Your task to perform on an android device: turn on location history Image 0: 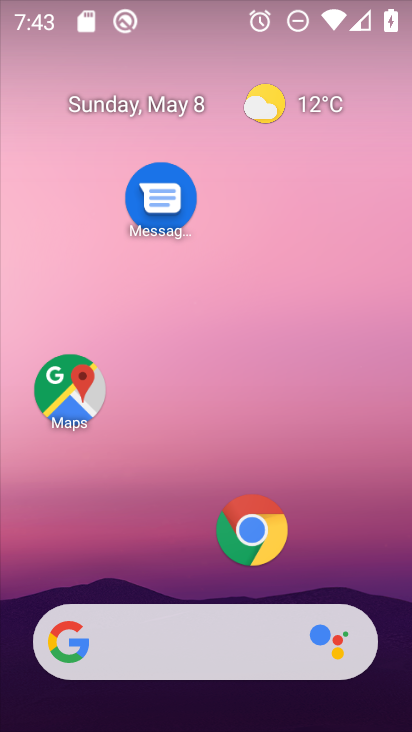
Step 0: drag from (192, 581) to (205, 49)
Your task to perform on an android device: turn on location history Image 1: 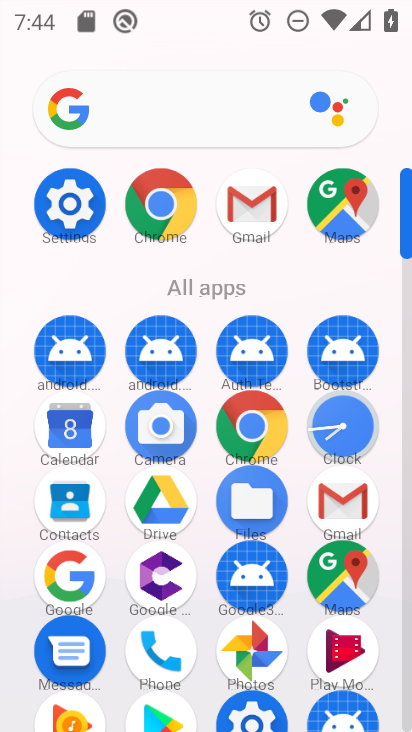
Step 1: click (252, 711)
Your task to perform on an android device: turn on location history Image 2: 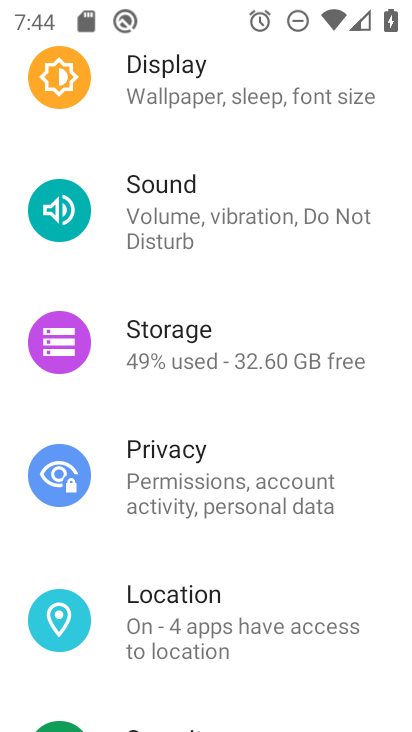
Step 2: click (188, 627)
Your task to perform on an android device: turn on location history Image 3: 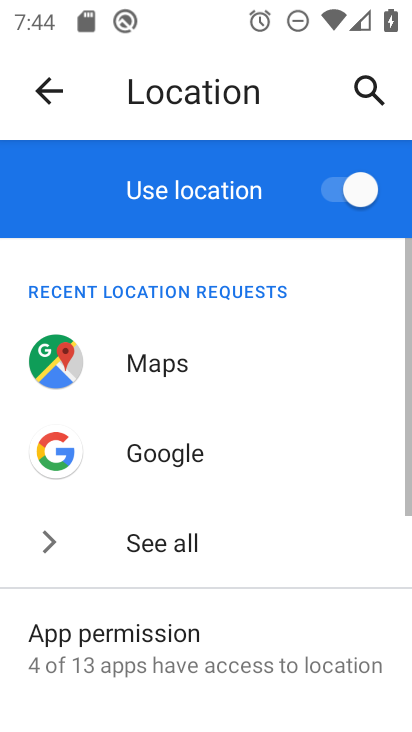
Step 3: drag from (185, 650) to (210, 196)
Your task to perform on an android device: turn on location history Image 4: 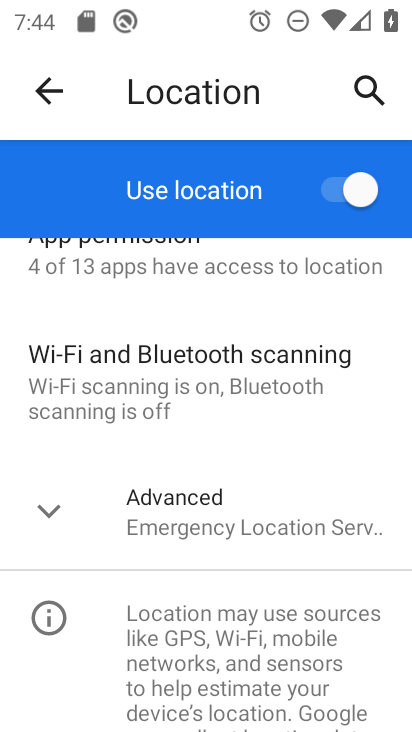
Step 4: click (33, 505)
Your task to perform on an android device: turn on location history Image 5: 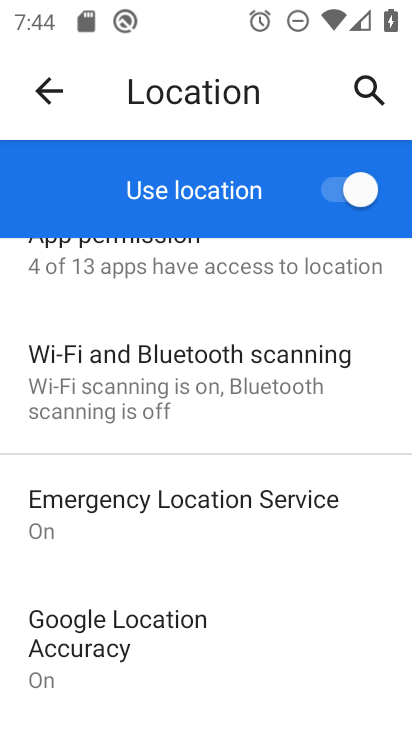
Step 5: drag from (163, 659) to (189, 305)
Your task to perform on an android device: turn on location history Image 6: 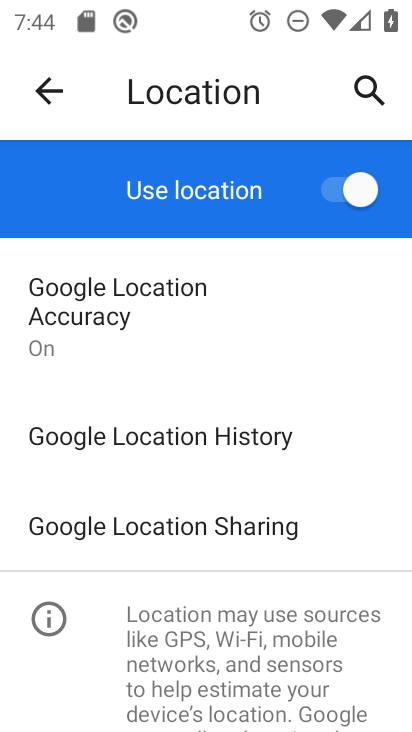
Step 6: click (304, 443)
Your task to perform on an android device: turn on location history Image 7: 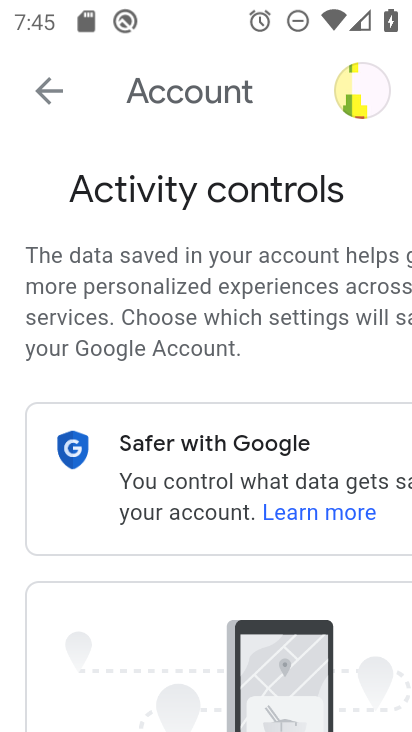
Step 7: drag from (183, 646) to (184, 197)
Your task to perform on an android device: turn on location history Image 8: 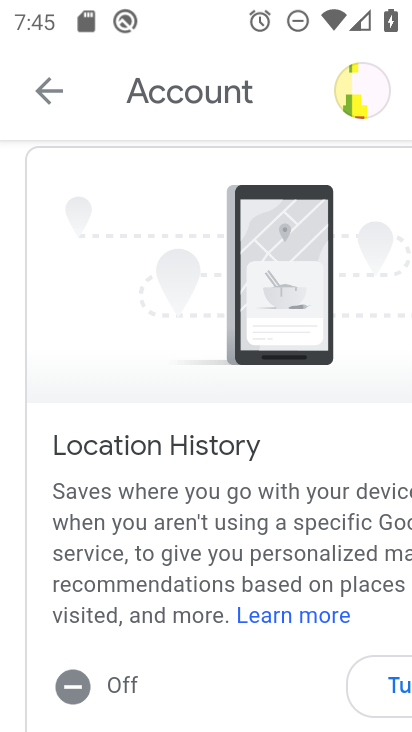
Step 8: click (371, 691)
Your task to perform on an android device: turn on location history Image 9: 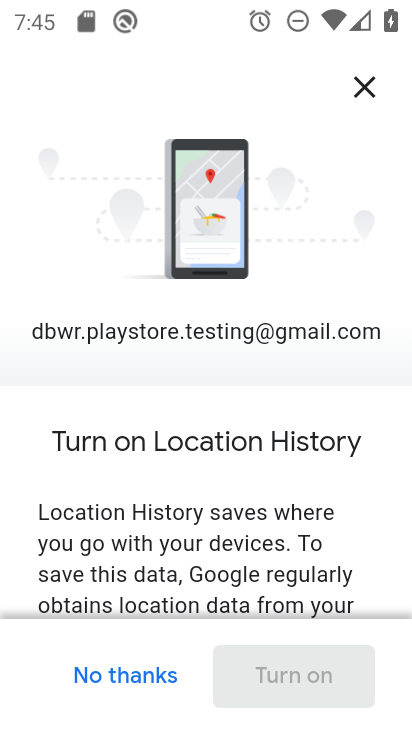
Step 9: drag from (238, 593) to (232, 148)
Your task to perform on an android device: turn on location history Image 10: 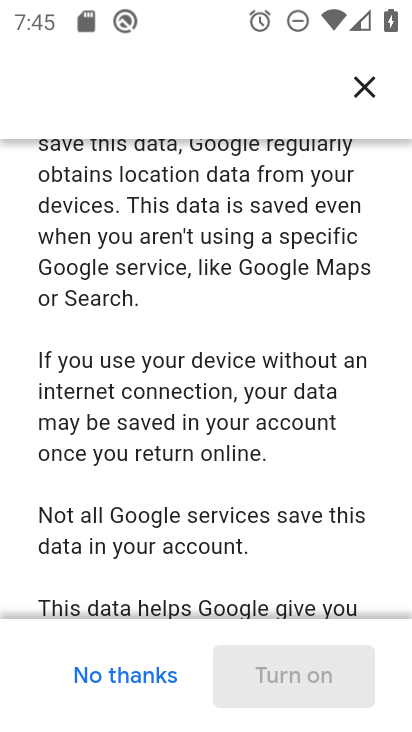
Step 10: drag from (230, 583) to (242, 137)
Your task to perform on an android device: turn on location history Image 11: 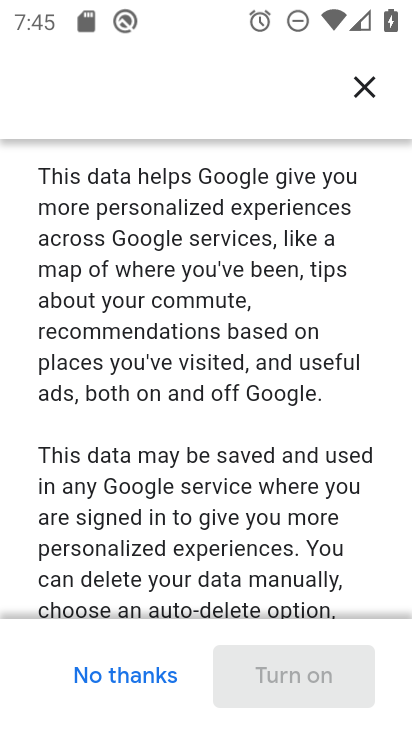
Step 11: drag from (244, 551) to (253, 104)
Your task to perform on an android device: turn on location history Image 12: 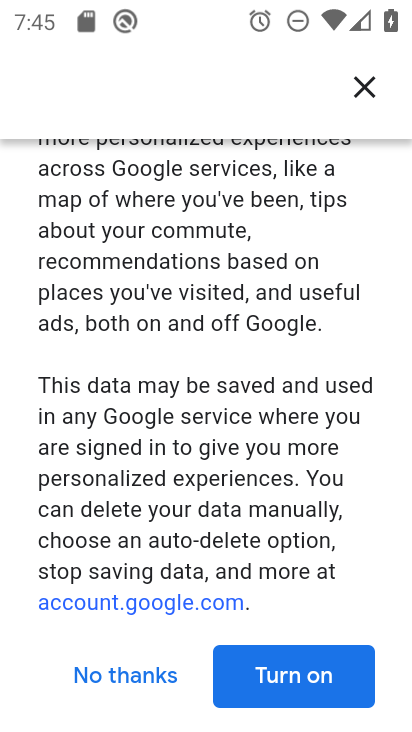
Step 12: click (291, 667)
Your task to perform on an android device: turn on location history Image 13: 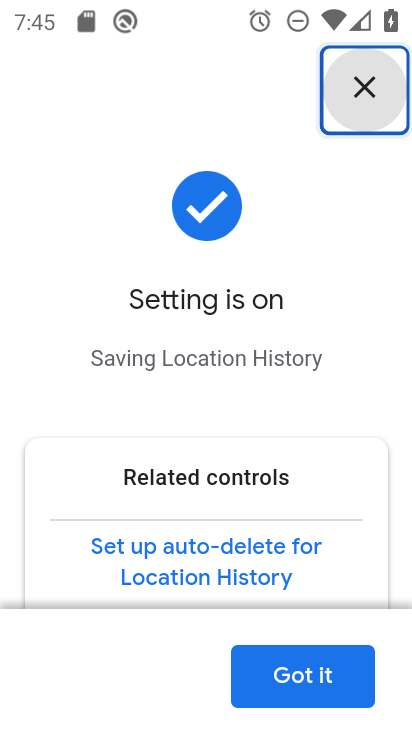
Step 13: click (294, 684)
Your task to perform on an android device: turn on location history Image 14: 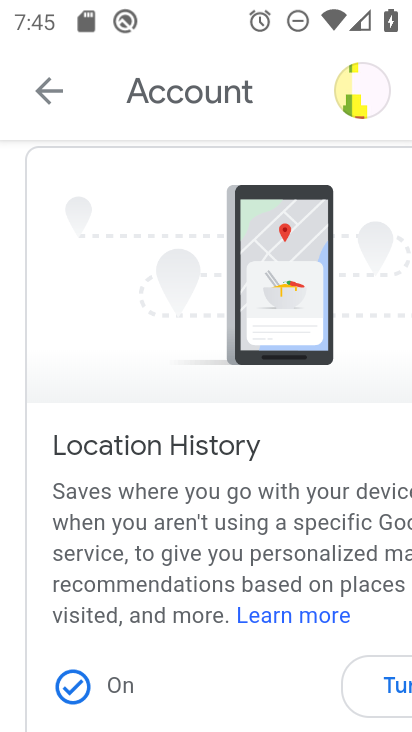
Step 14: task complete